Your task to perform on an android device: What's the weather going to be tomorrow? Image 0: 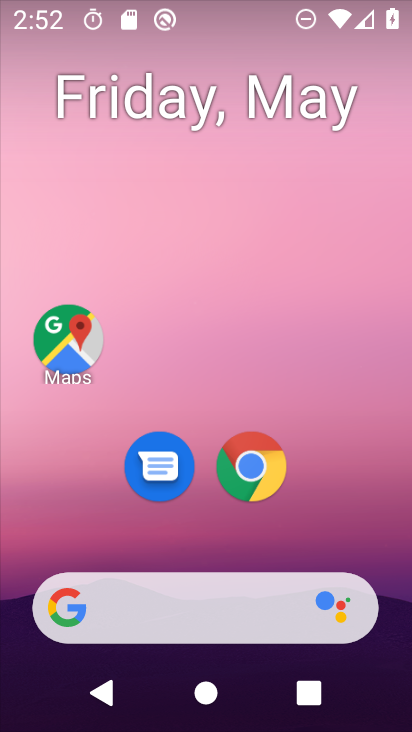
Step 0: drag from (342, 561) to (344, 93)
Your task to perform on an android device: What's the weather going to be tomorrow? Image 1: 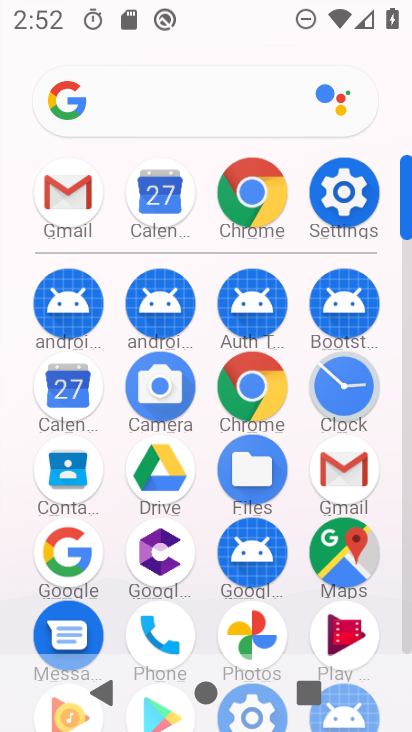
Step 1: press home button
Your task to perform on an android device: What's the weather going to be tomorrow? Image 2: 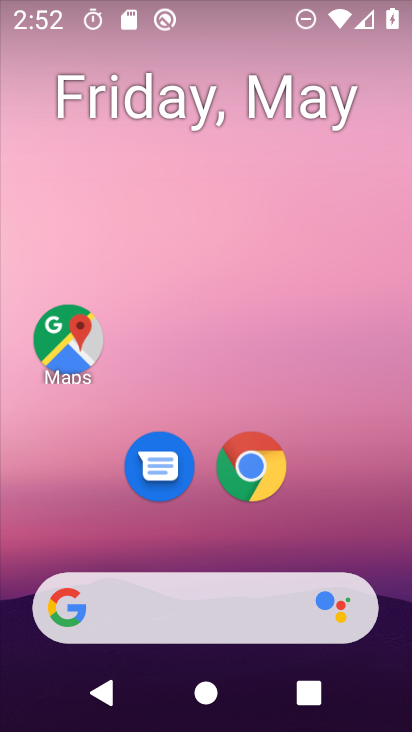
Step 2: drag from (381, 527) to (394, 73)
Your task to perform on an android device: What's the weather going to be tomorrow? Image 3: 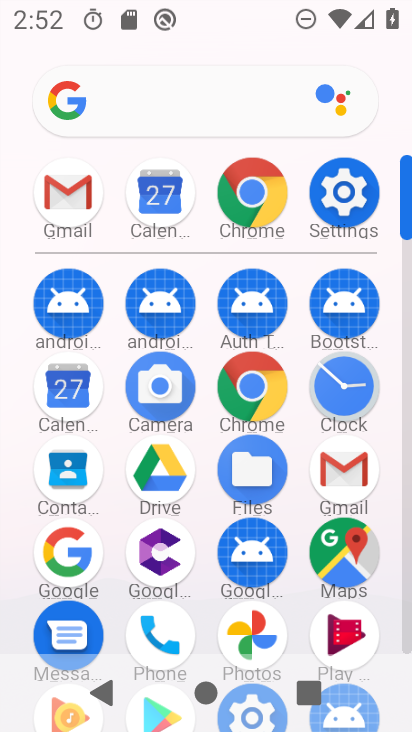
Step 3: click (78, 101)
Your task to perform on an android device: What's the weather going to be tomorrow? Image 4: 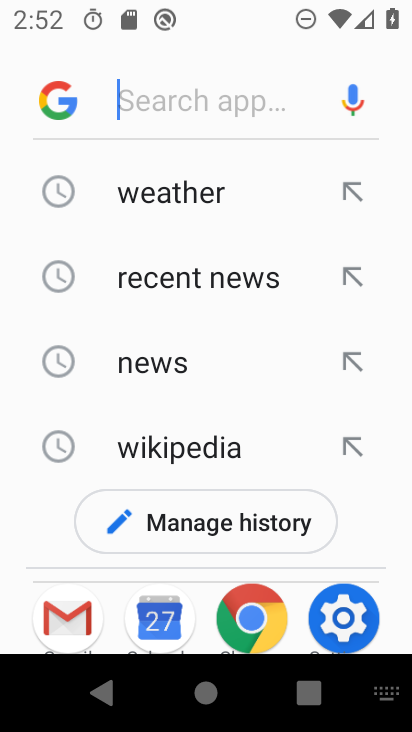
Step 4: click (78, 100)
Your task to perform on an android device: What's the weather going to be tomorrow? Image 5: 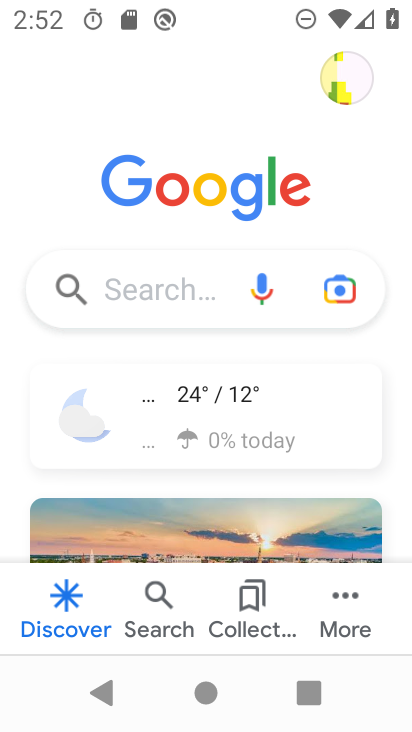
Step 5: click (227, 420)
Your task to perform on an android device: What's the weather going to be tomorrow? Image 6: 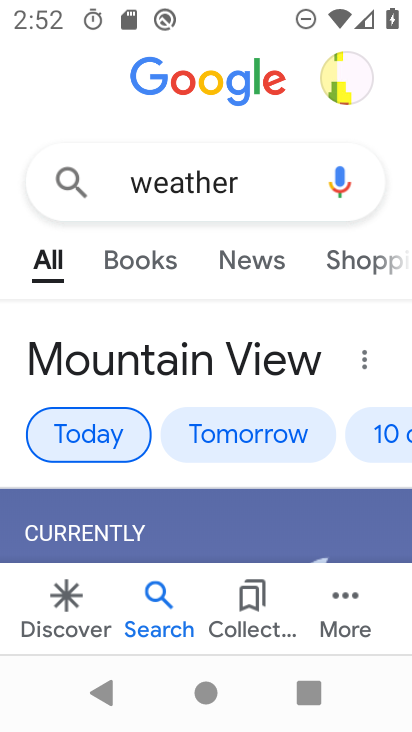
Step 6: drag from (282, 454) to (316, 172)
Your task to perform on an android device: What's the weather going to be tomorrow? Image 7: 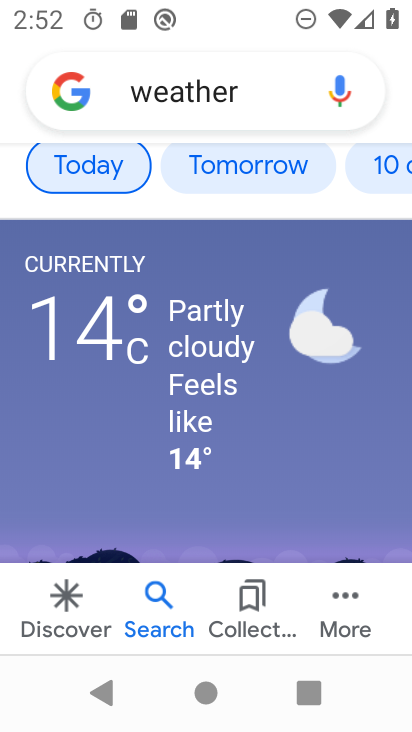
Step 7: click (279, 317)
Your task to perform on an android device: What's the weather going to be tomorrow? Image 8: 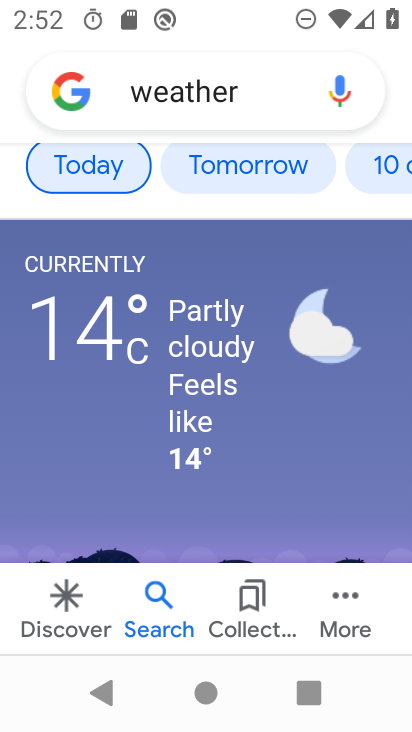
Step 8: click (206, 308)
Your task to perform on an android device: What's the weather going to be tomorrow? Image 9: 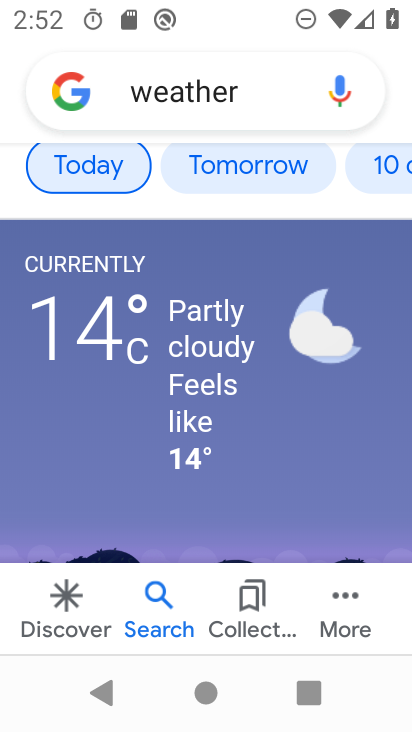
Step 9: task complete